Your task to perform on an android device: Open CNN.com Image 0: 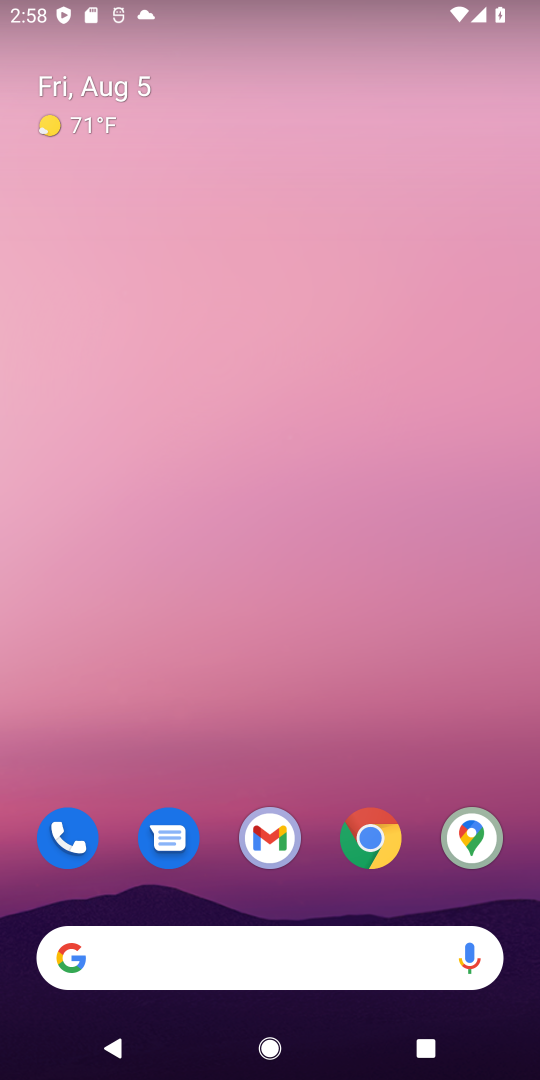
Step 0: click (386, 839)
Your task to perform on an android device: Open CNN.com Image 1: 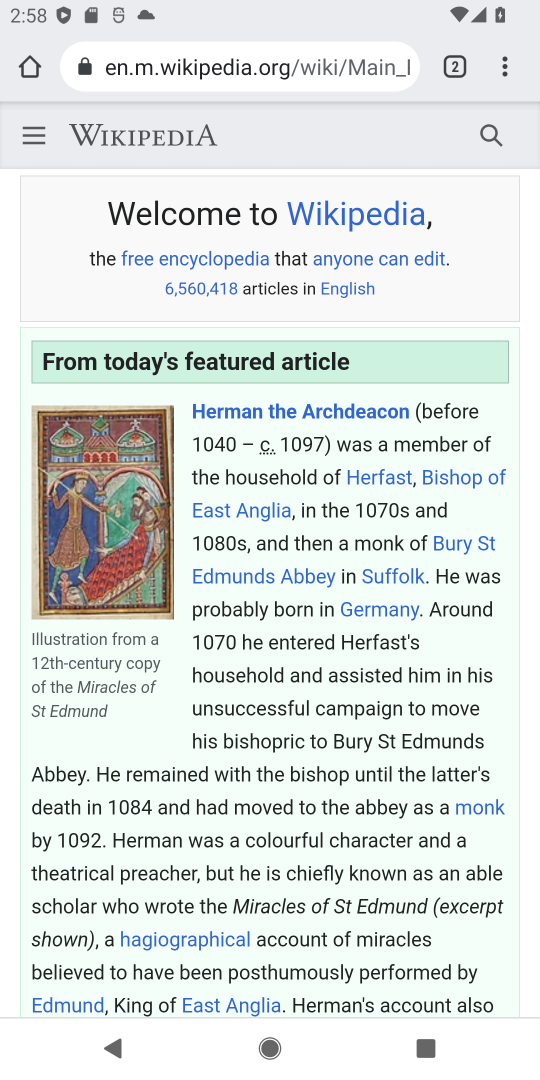
Step 1: click (314, 70)
Your task to perform on an android device: Open CNN.com Image 2: 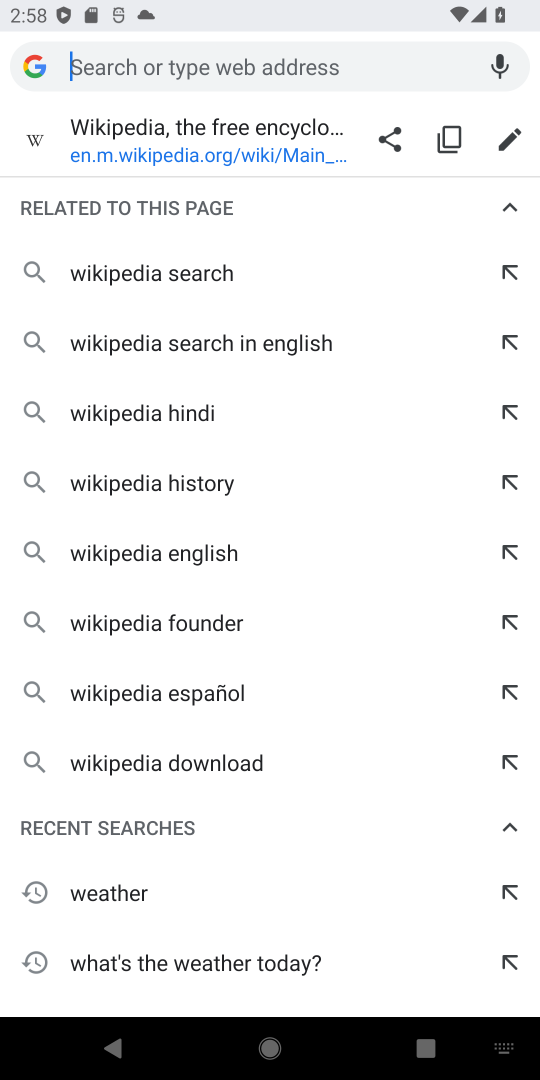
Step 2: type "cnn.com"
Your task to perform on an android device: Open CNN.com Image 3: 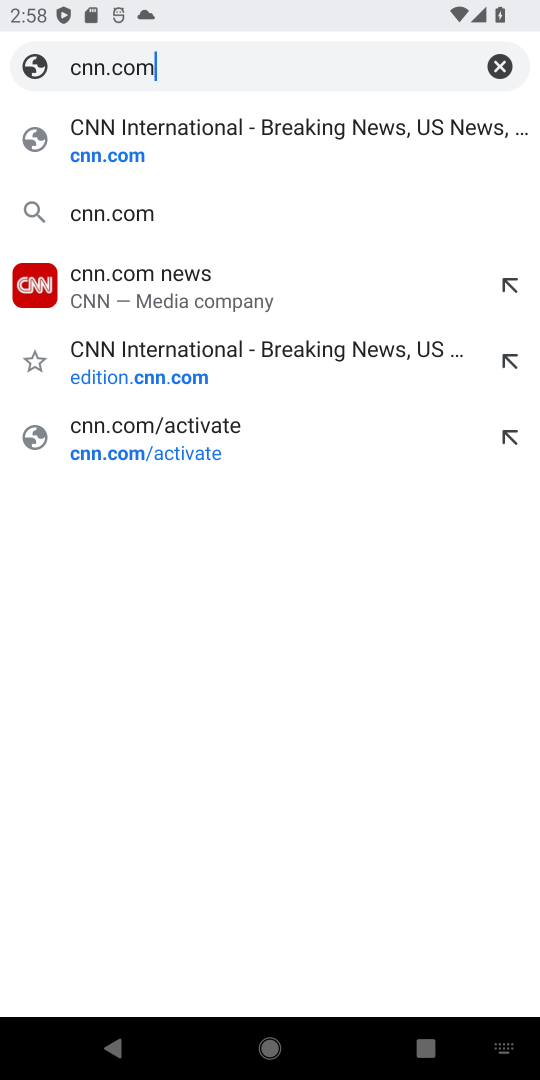
Step 3: click (270, 136)
Your task to perform on an android device: Open CNN.com Image 4: 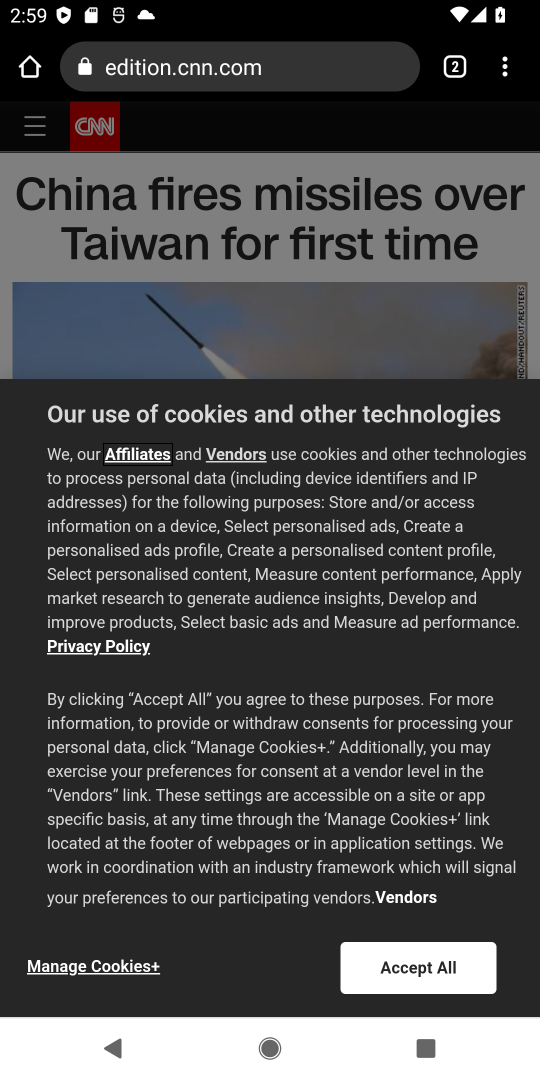
Step 4: task complete